Your task to perform on an android device: turn on data saver in the chrome app Image 0: 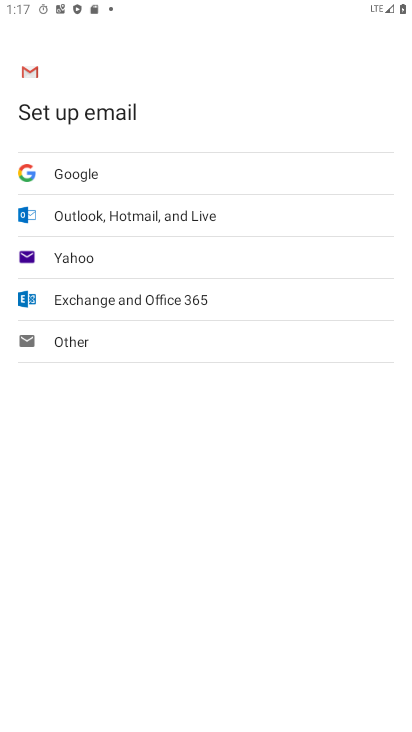
Step 0: press home button
Your task to perform on an android device: turn on data saver in the chrome app Image 1: 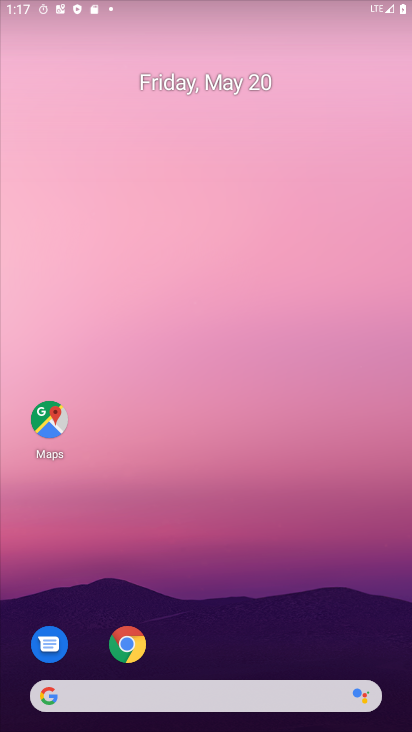
Step 1: drag from (310, 508) to (279, 0)
Your task to perform on an android device: turn on data saver in the chrome app Image 2: 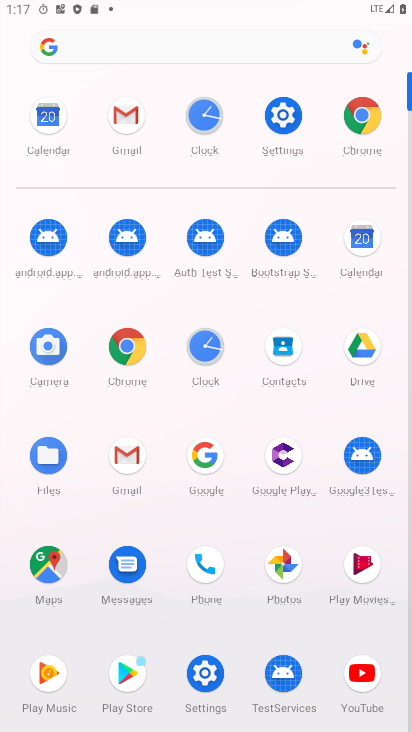
Step 2: click (366, 123)
Your task to perform on an android device: turn on data saver in the chrome app Image 3: 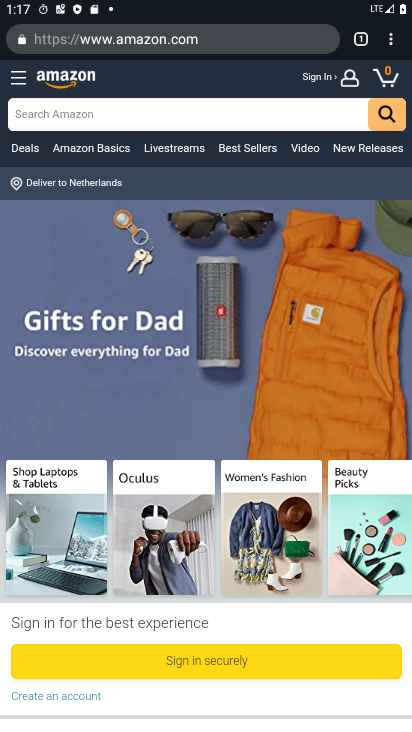
Step 3: drag from (391, 42) to (271, 433)
Your task to perform on an android device: turn on data saver in the chrome app Image 4: 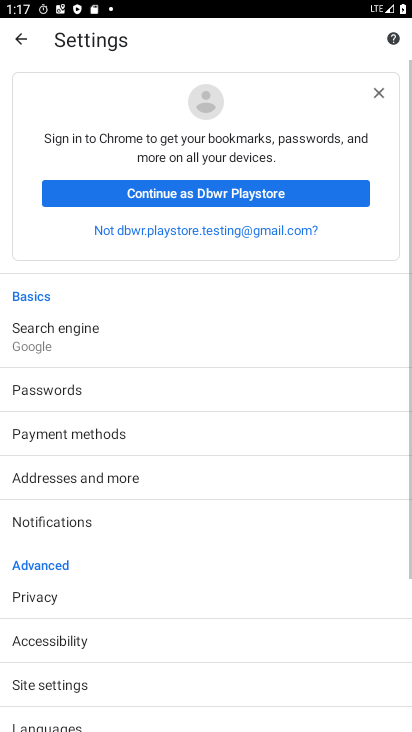
Step 4: drag from (185, 669) to (196, 193)
Your task to perform on an android device: turn on data saver in the chrome app Image 5: 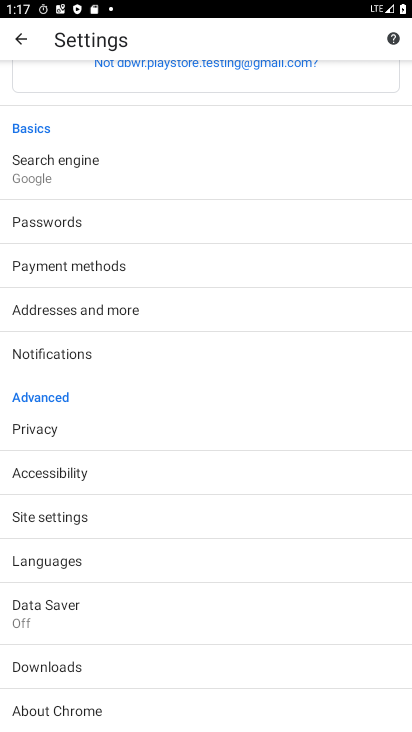
Step 5: click (70, 617)
Your task to perform on an android device: turn on data saver in the chrome app Image 6: 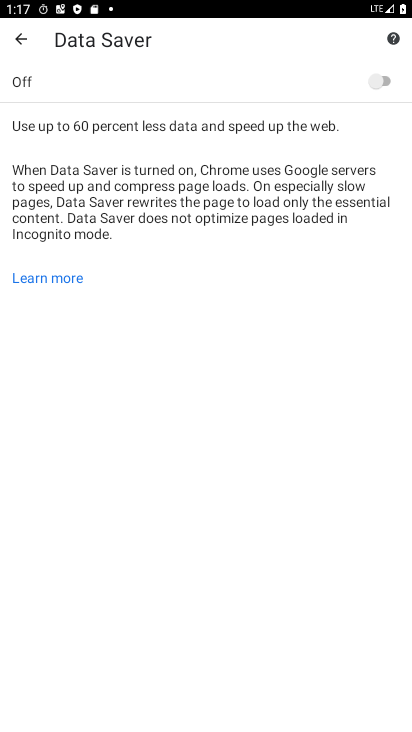
Step 6: click (367, 80)
Your task to perform on an android device: turn on data saver in the chrome app Image 7: 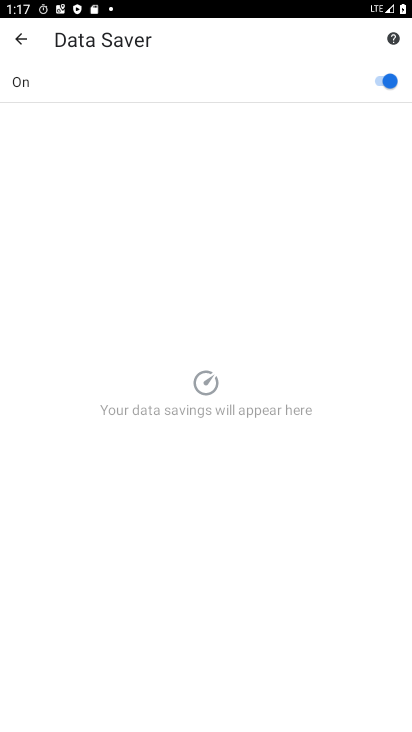
Step 7: task complete